Your task to perform on an android device: turn off smart reply in the gmail app Image 0: 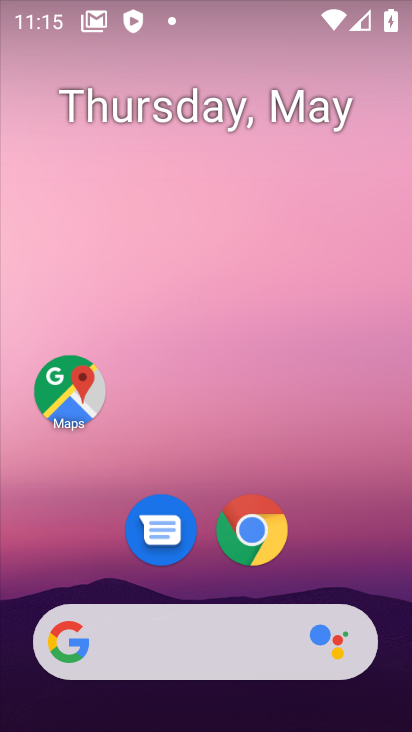
Step 0: drag from (369, 554) to (321, 218)
Your task to perform on an android device: turn off smart reply in the gmail app Image 1: 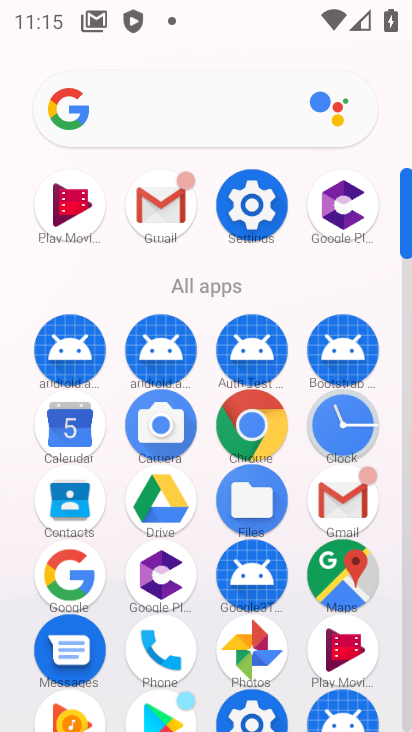
Step 1: click (338, 497)
Your task to perform on an android device: turn off smart reply in the gmail app Image 2: 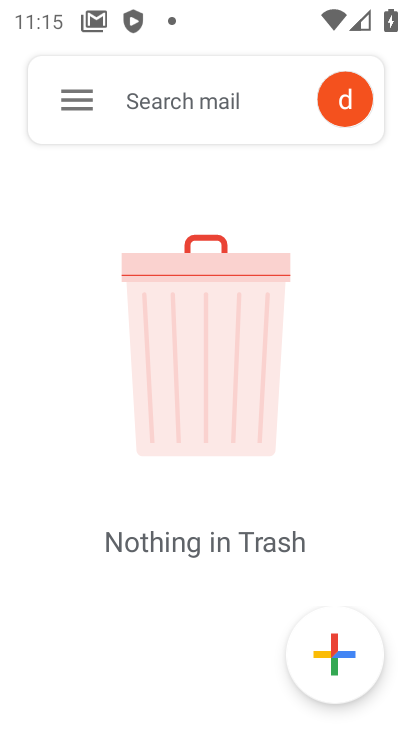
Step 2: click (58, 104)
Your task to perform on an android device: turn off smart reply in the gmail app Image 3: 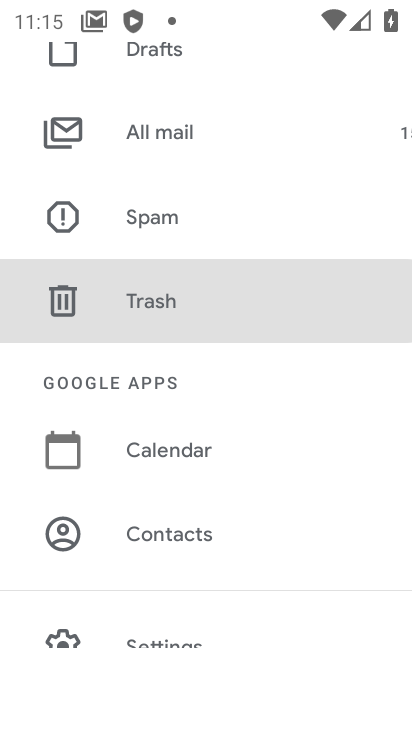
Step 3: drag from (252, 533) to (231, 355)
Your task to perform on an android device: turn off smart reply in the gmail app Image 4: 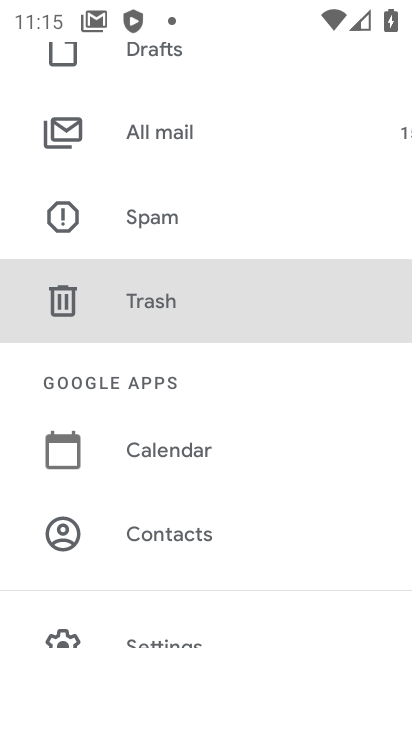
Step 4: drag from (307, 553) to (310, 394)
Your task to perform on an android device: turn off smart reply in the gmail app Image 5: 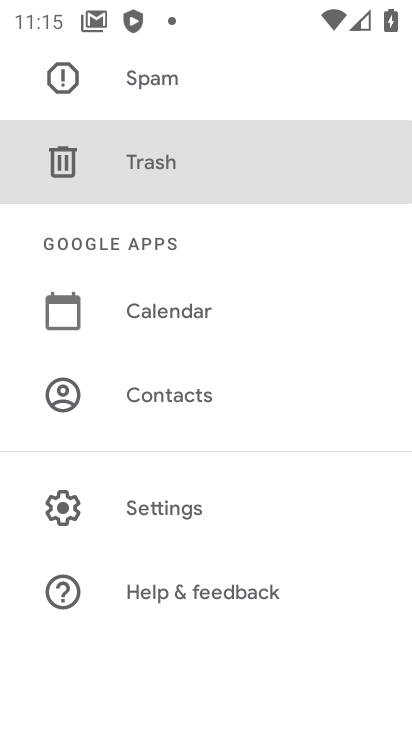
Step 5: click (162, 508)
Your task to perform on an android device: turn off smart reply in the gmail app Image 6: 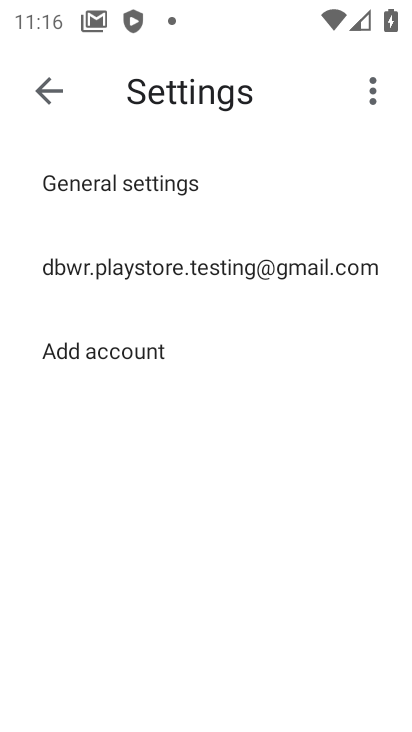
Step 6: click (114, 256)
Your task to perform on an android device: turn off smart reply in the gmail app Image 7: 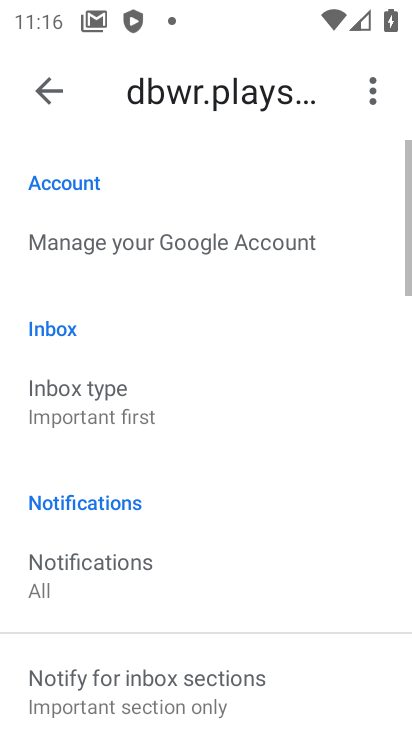
Step 7: drag from (320, 517) to (291, 330)
Your task to perform on an android device: turn off smart reply in the gmail app Image 8: 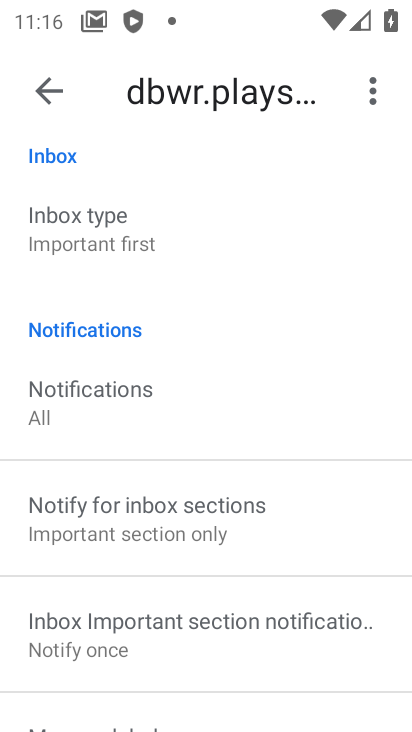
Step 8: drag from (289, 662) to (306, 464)
Your task to perform on an android device: turn off smart reply in the gmail app Image 9: 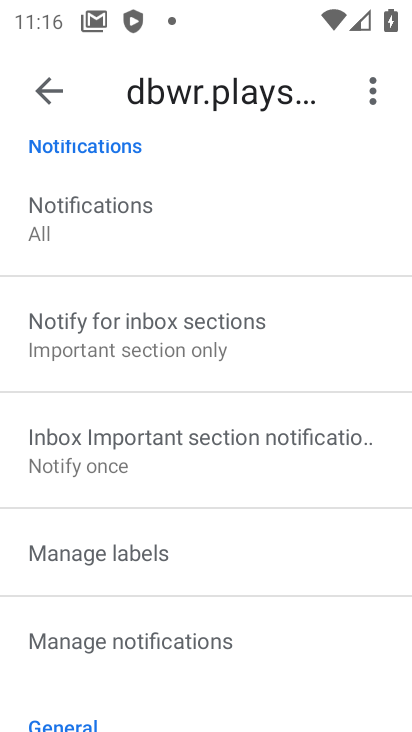
Step 9: drag from (244, 628) to (241, 390)
Your task to perform on an android device: turn off smart reply in the gmail app Image 10: 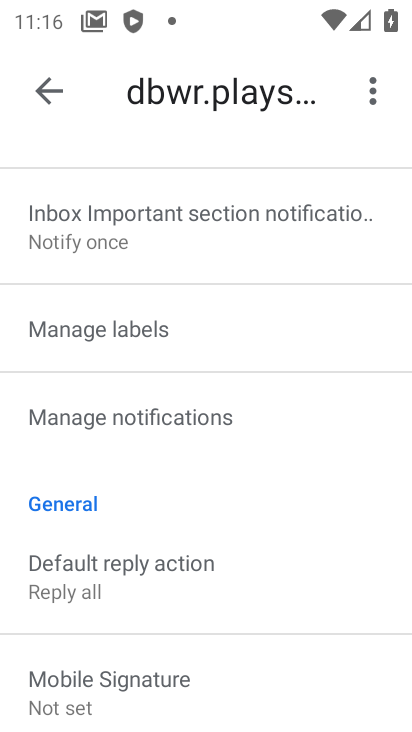
Step 10: drag from (256, 662) to (292, 454)
Your task to perform on an android device: turn off smart reply in the gmail app Image 11: 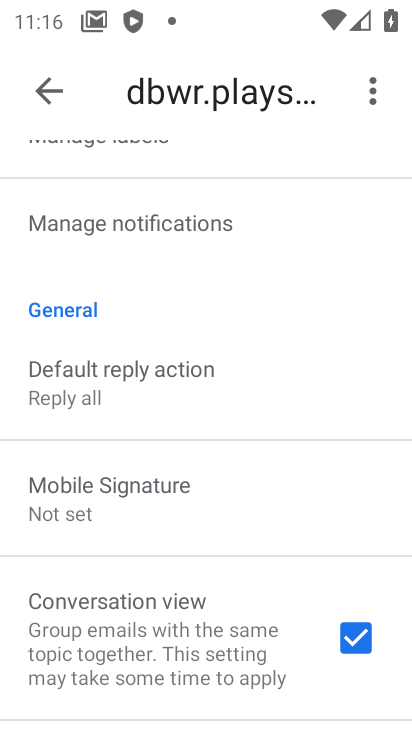
Step 11: drag from (213, 649) to (233, 412)
Your task to perform on an android device: turn off smart reply in the gmail app Image 12: 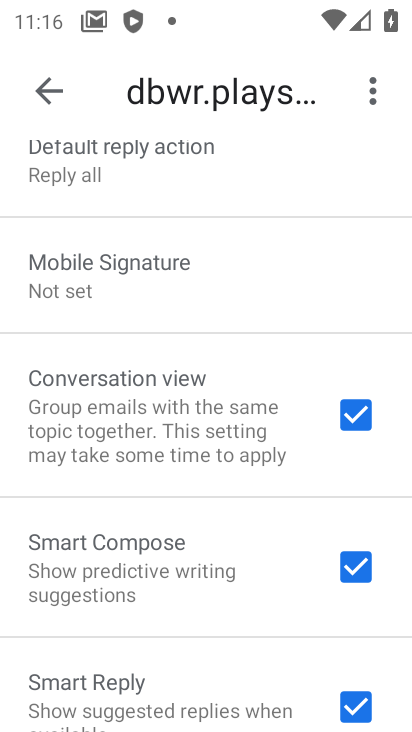
Step 12: drag from (238, 622) to (243, 460)
Your task to perform on an android device: turn off smart reply in the gmail app Image 13: 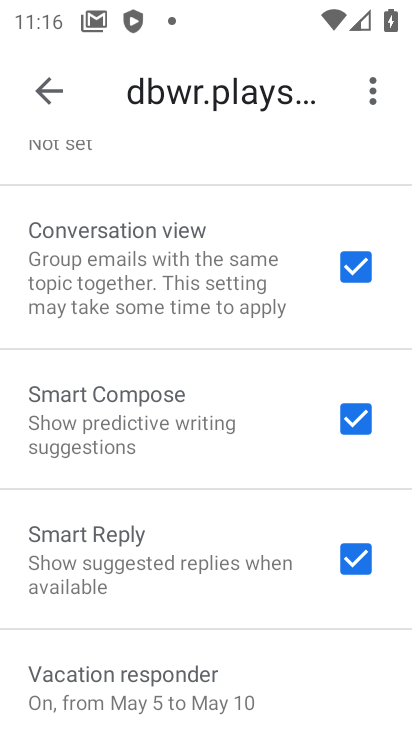
Step 13: click (347, 561)
Your task to perform on an android device: turn off smart reply in the gmail app Image 14: 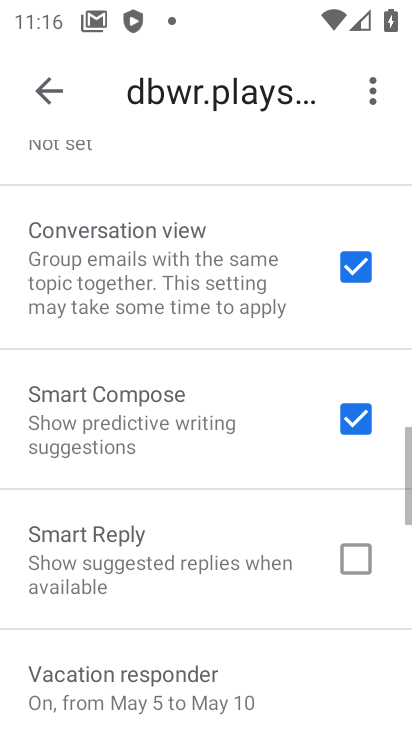
Step 14: task complete